Your task to perform on an android device: Open eBay Image 0: 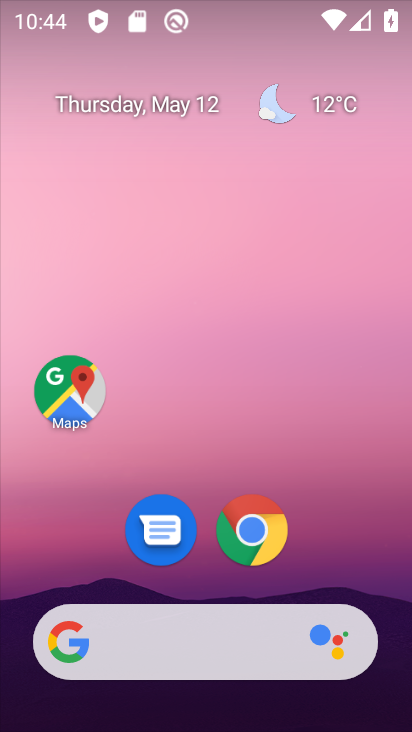
Step 0: click (257, 545)
Your task to perform on an android device: Open eBay Image 1: 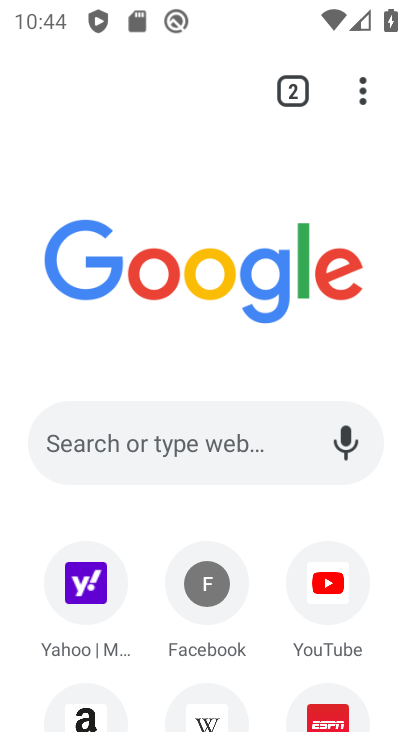
Step 1: drag from (177, 557) to (255, 299)
Your task to perform on an android device: Open eBay Image 2: 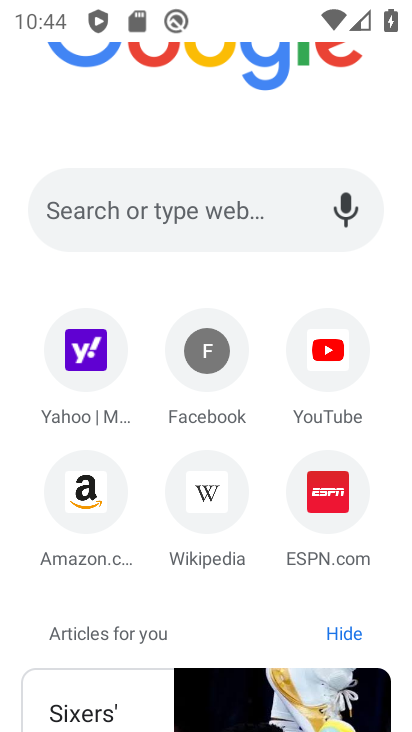
Step 2: click (120, 211)
Your task to perform on an android device: Open eBay Image 3: 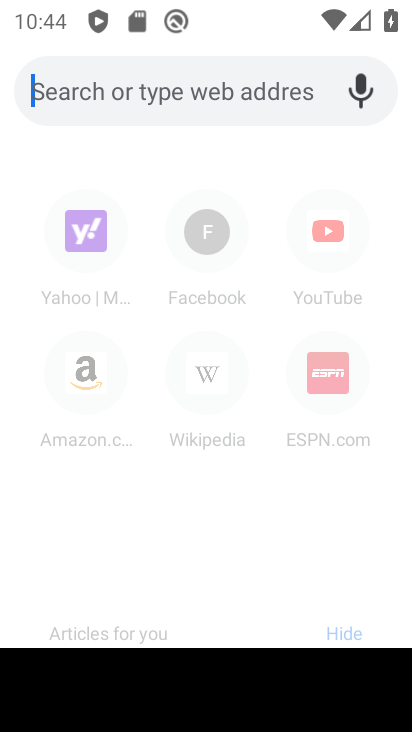
Step 3: type "ebay"
Your task to perform on an android device: Open eBay Image 4: 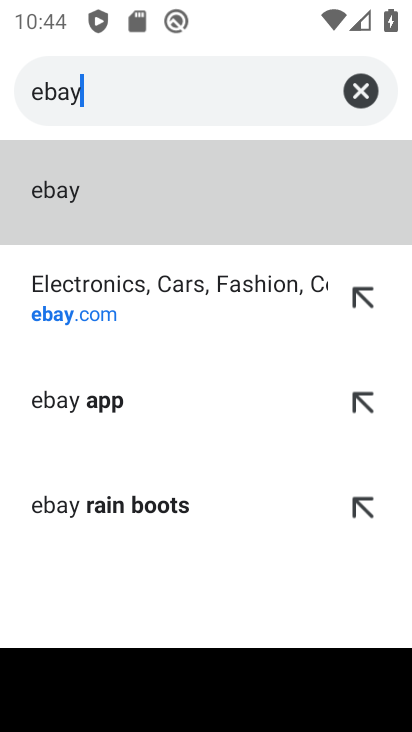
Step 4: click (169, 293)
Your task to perform on an android device: Open eBay Image 5: 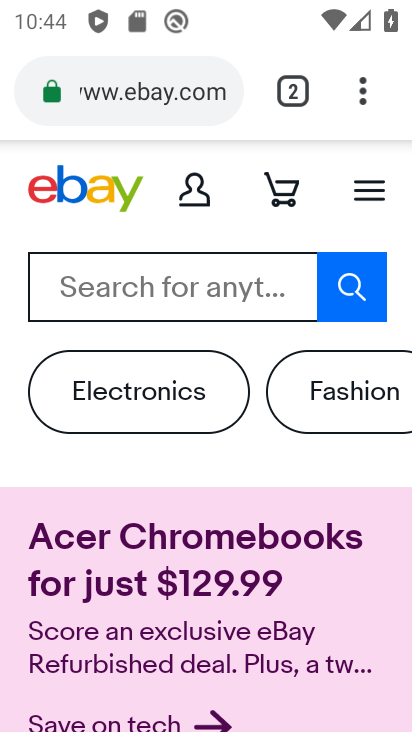
Step 5: task complete